Your task to perform on an android device: turn on javascript in the chrome app Image 0: 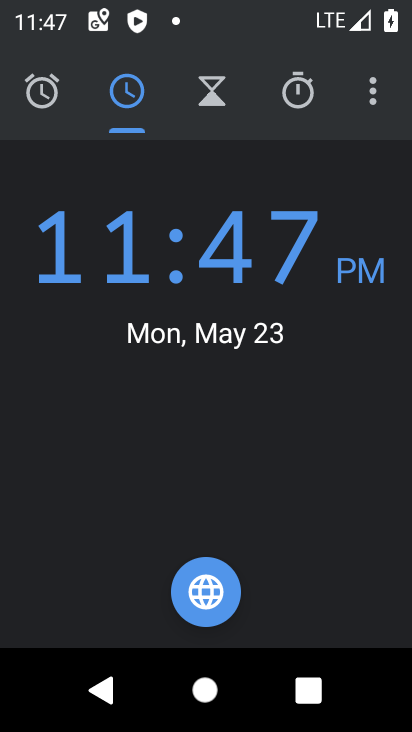
Step 0: press home button
Your task to perform on an android device: turn on javascript in the chrome app Image 1: 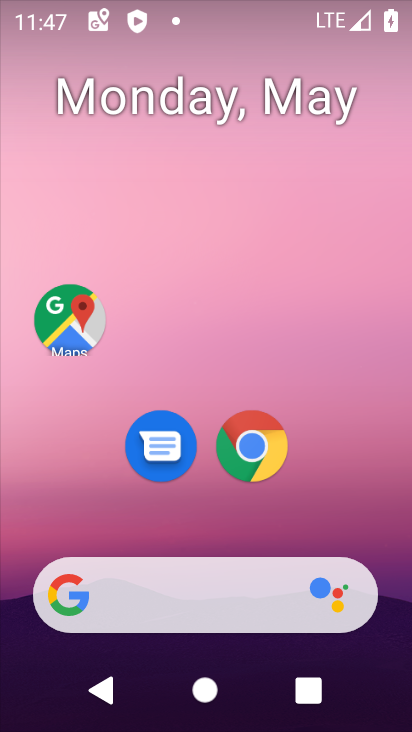
Step 1: drag from (332, 454) to (261, 91)
Your task to perform on an android device: turn on javascript in the chrome app Image 2: 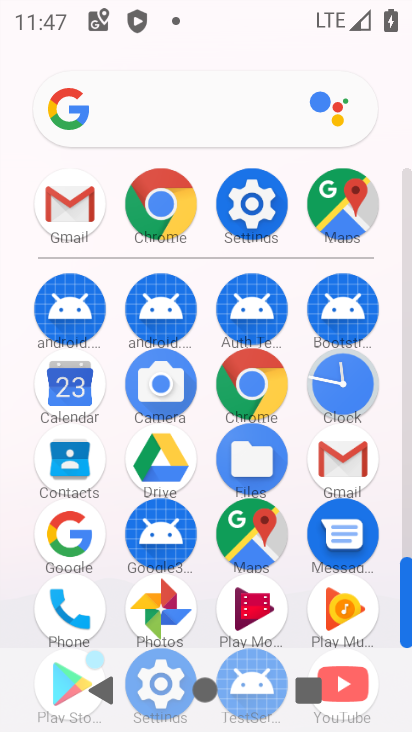
Step 2: click (158, 205)
Your task to perform on an android device: turn on javascript in the chrome app Image 3: 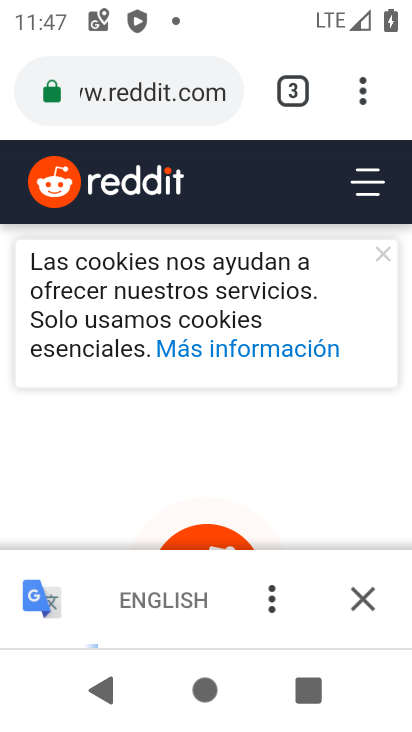
Step 3: drag from (376, 102) to (124, 460)
Your task to perform on an android device: turn on javascript in the chrome app Image 4: 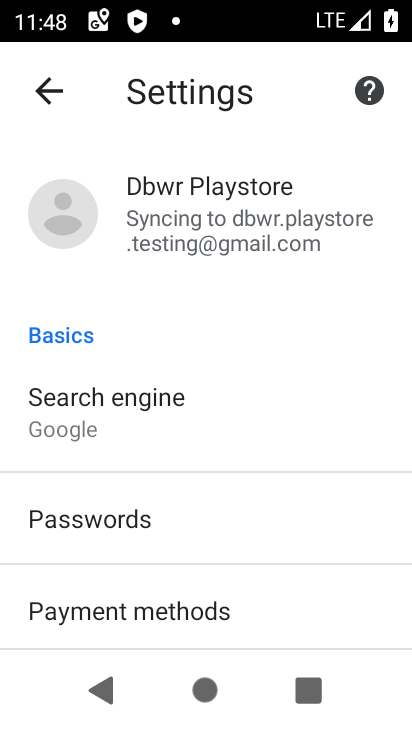
Step 4: drag from (181, 566) to (199, 199)
Your task to perform on an android device: turn on javascript in the chrome app Image 5: 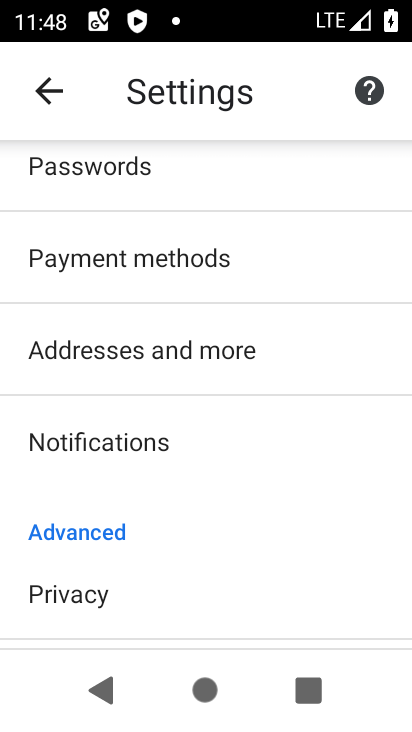
Step 5: drag from (164, 604) to (130, 211)
Your task to perform on an android device: turn on javascript in the chrome app Image 6: 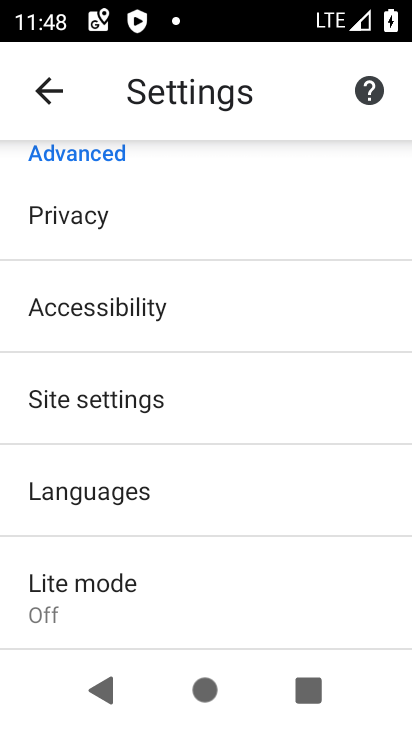
Step 6: click (109, 413)
Your task to perform on an android device: turn on javascript in the chrome app Image 7: 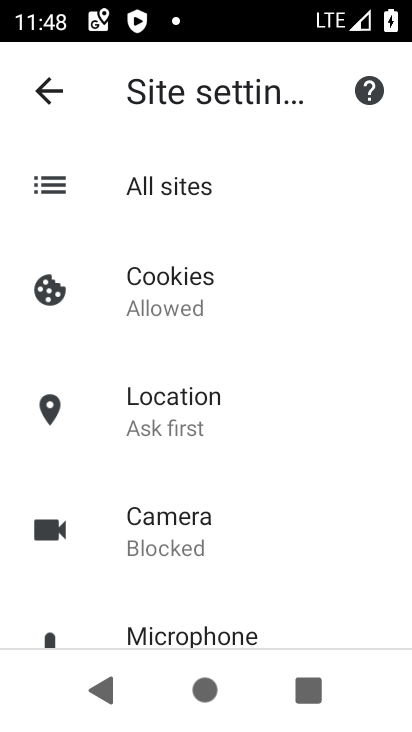
Step 7: drag from (188, 591) to (138, 193)
Your task to perform on an android device: turn on javascript in the chrome app Image 8: 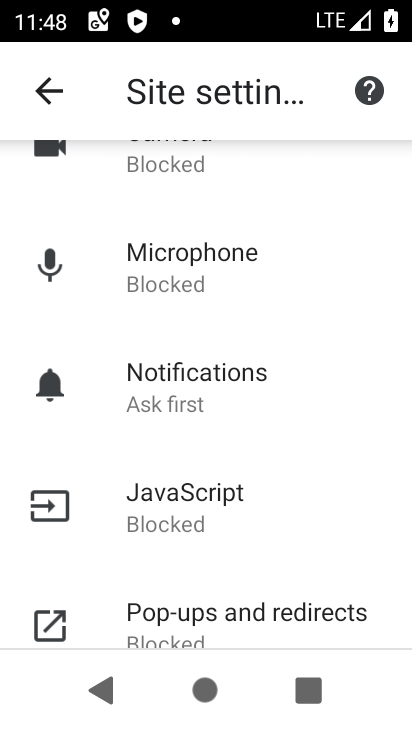
Step 8: click (162, 524)
Your task to perform on an android device: turn on javascript in the chrome app Image 9: 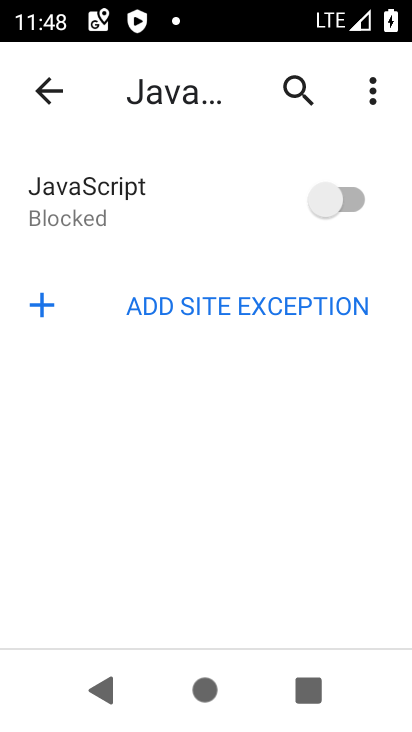
Step 9: click (360, 212)
Your task to perform on an android device: turn on javascript in the chrome app Image 10: 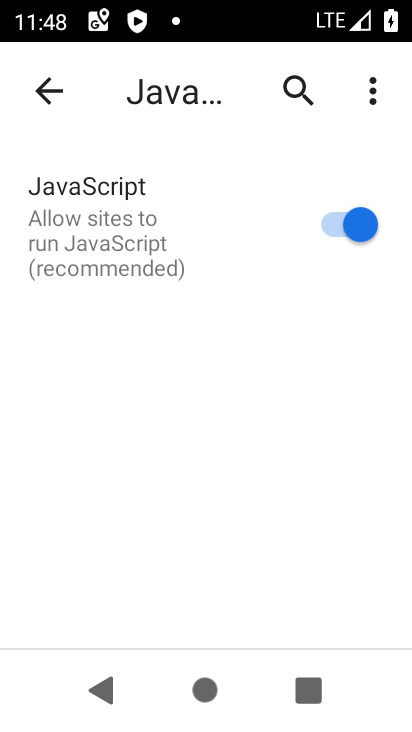
Step 10: task complete